Your task to perform on an android device: Is it going to rain today? Image 0: 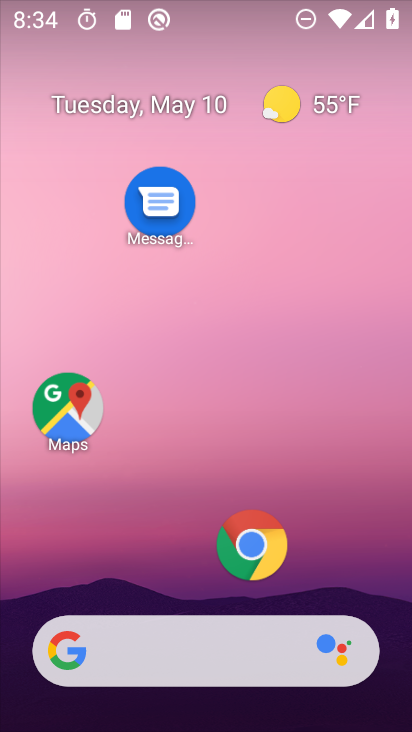
Step 0: drag from (176, 560) to (225, 165)
Your task to perform on an android device: Is it going to rain today? Image 1: 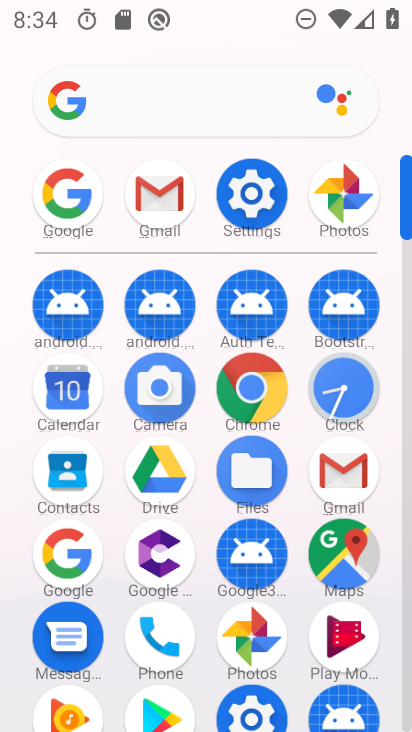
Step 1: click (59, 571)
Your task to perform on an android device: Is it going to rain today? Image 2: 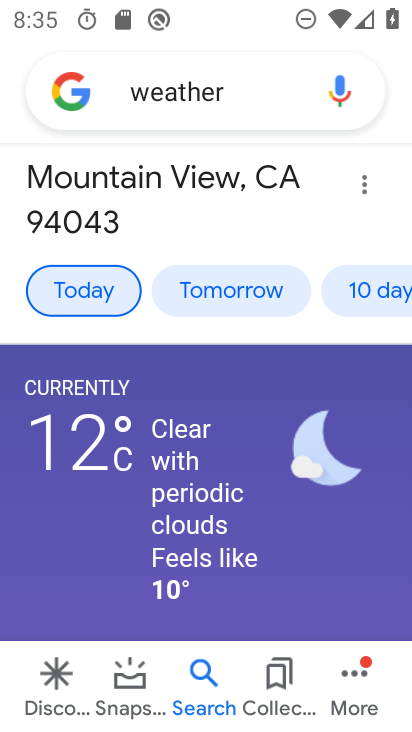
Step 2: task complete